Your task to perform on an android device: choose inbox layout in the gmail app Image 0: 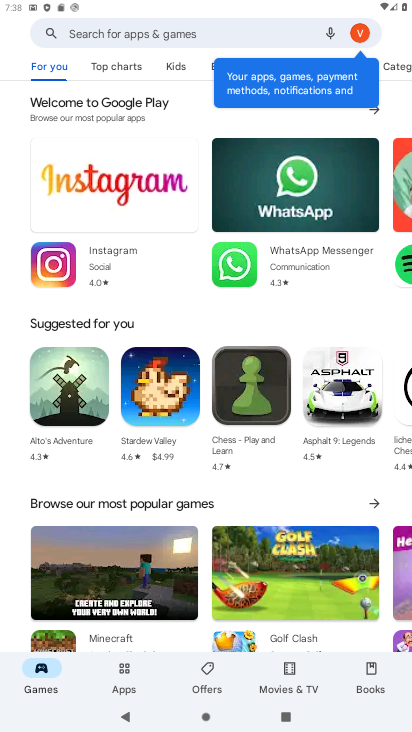
Step 0: press home button
Your task to perform on an android device: choose inbox layout in the gmail app Image 1: 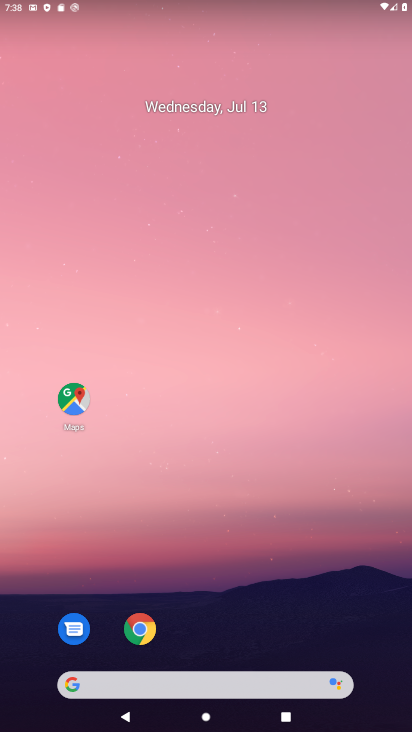
Step 1: drag from (39, 702) to (267, 99)
Your task to perform on an android device: choose inbox layout in the gmail app Image 2: 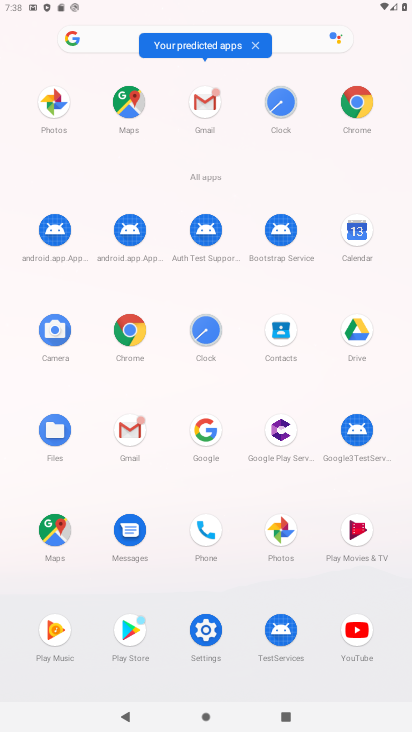
Step 2: click (121, 431)
Your task to perform on an android device: choose inbox layout in the gmail app Image 3: 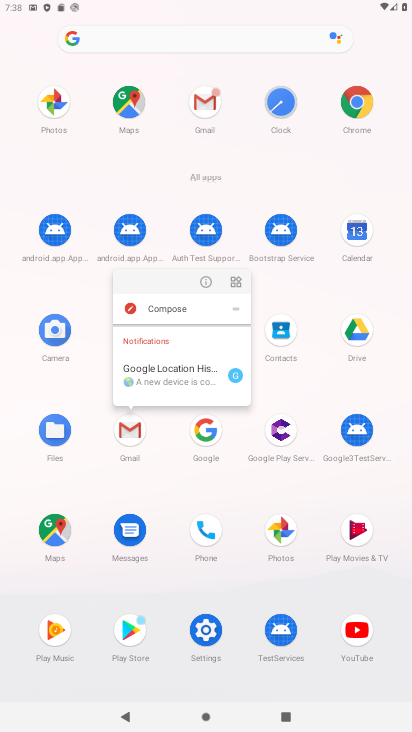
Step 3: click (133, 441)
Your task to perform on an android device: choose inbox layout in the gmail app Image 4: 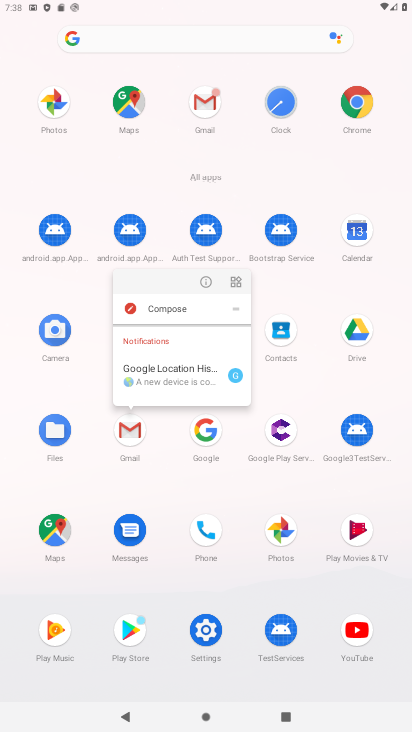
Step 4: click (128, 438)
Your task to perform on an android device: choose inbox layout in the gmail app Image 5: 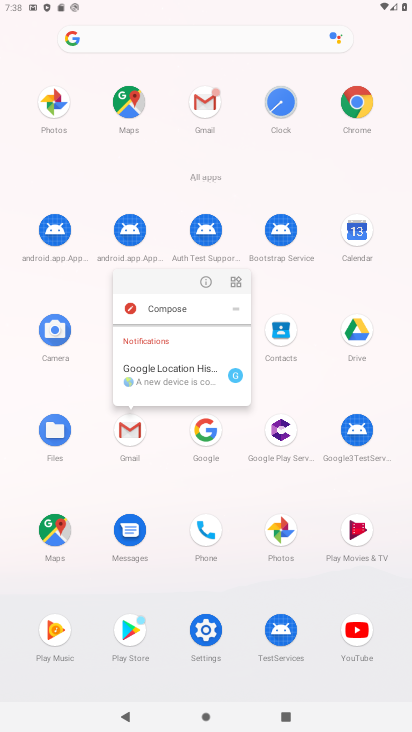
Step 5: click (128, 431)
Your task to perform on an android device: choose inbox layout in the gmail app Image 6: 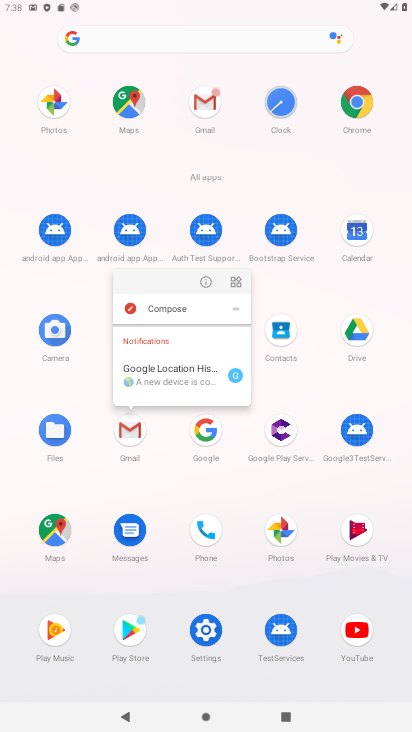
Step 6: click (124, 436)
Your task to perform on an android device: choose inbox layout in the gmail app Image 7: 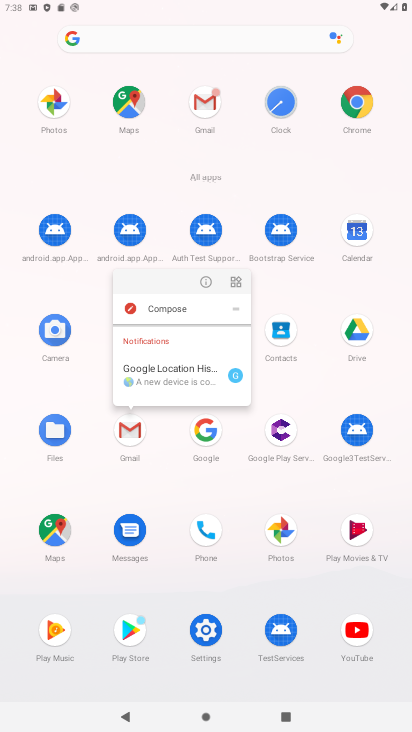
Step 7: task complete